Your task to perform on an android device: search for starred emails in the gmail app Image 0: 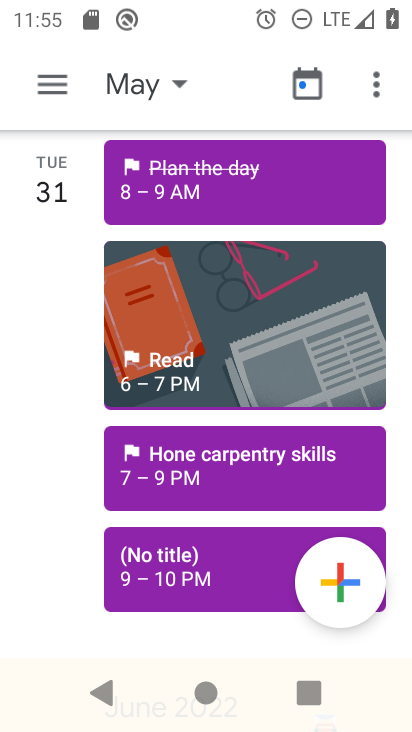
Step 0: press home button
Your task to perform on an android device: search for starred emails in the gmail app Image 1: 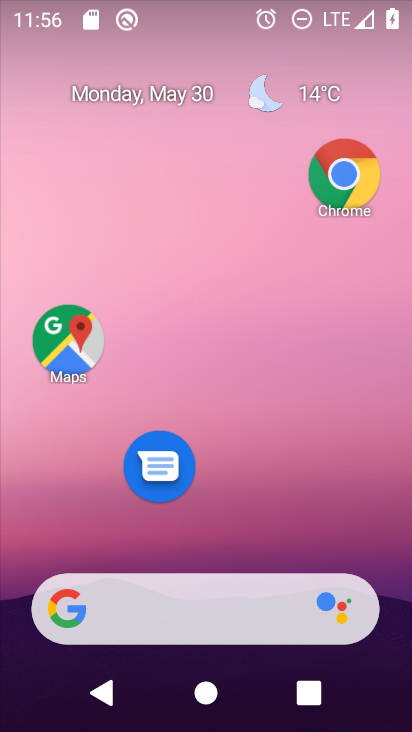
Step 1: drag from (236, 534) to (248, 9)
Your task to perform on an android device: search for starred emails in the gmail app Image 2: 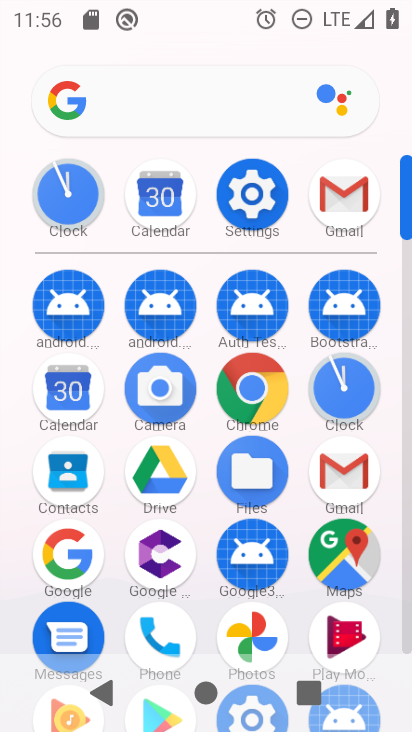
Step 2: click (341, 196)
Your task to perform on an android device: search for starred emails in the gmail app Image 3: 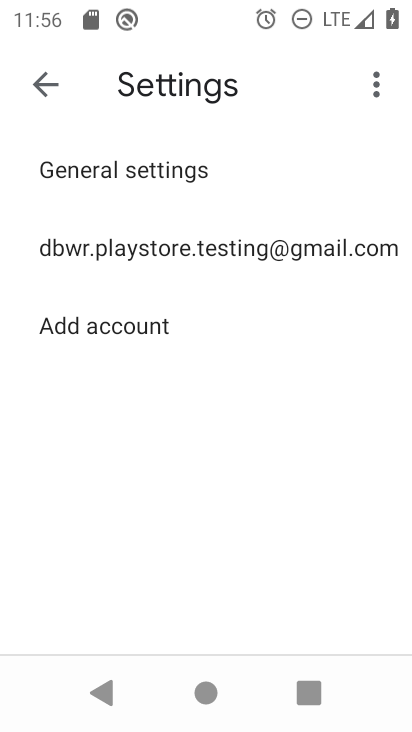
Step 3: click (42, 89)
Your task to perform on an android device: search for starred emails in the gmail app Image 4: 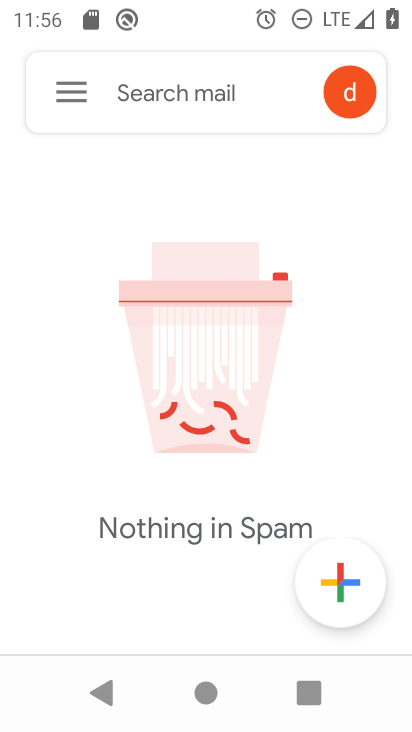
Step 4: click (70, 84)
Your task to perform on an android device: search for starred emails in the gmail app Image 5: 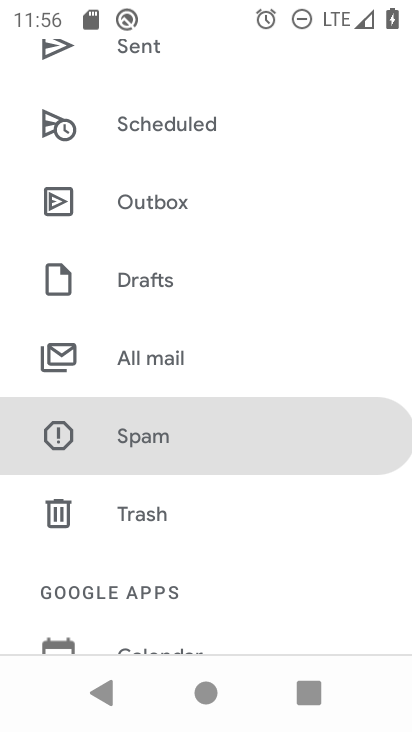
Step 5: drag from (247, 88) to (238, 345)
Your task to perform on an android device: search for starred emails in the gmail app Image 6: 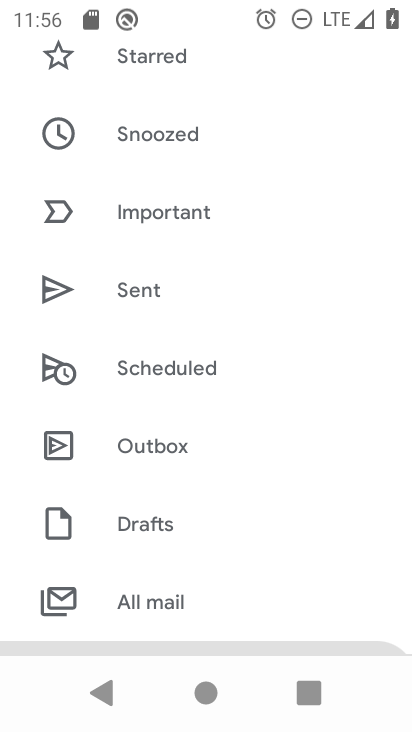
Step 6: click (188, 54)
Your task to perform on an android device: search for starred emails in the gmail app Image 7: 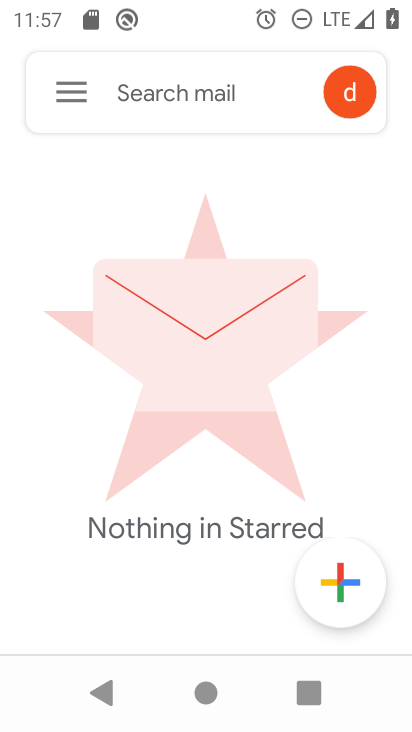
Step 7: task complete